Your task to perform on an android device: Show me the alarms in the clock app Image 0: 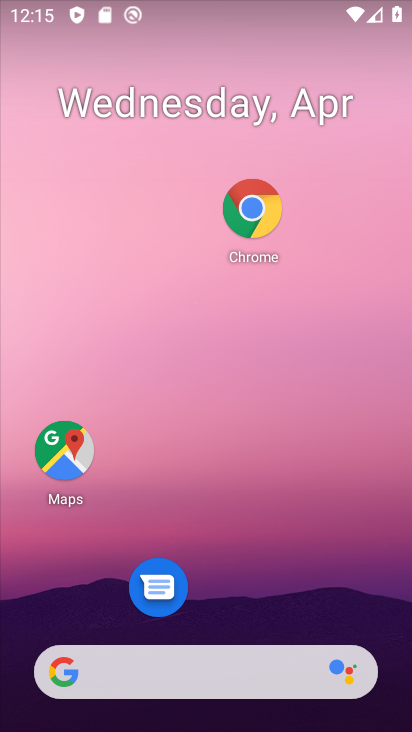
Step 0: drag from (238, 634) to (290, 248)
Your task to perform on an android device: Show me the alarms in the clock app Image 1: 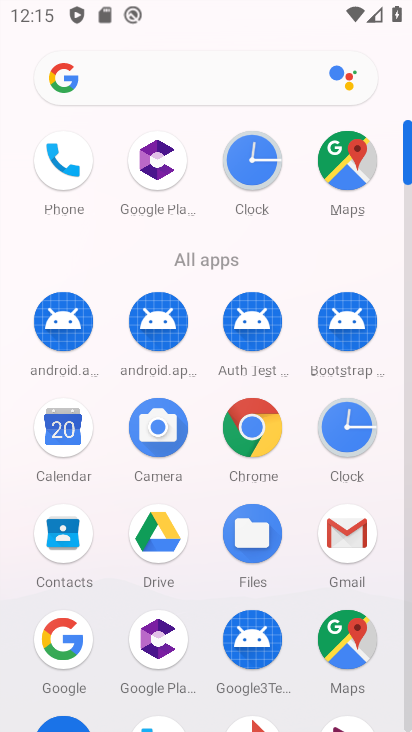
Step 1: click (240, 164)
Your task to perform on an android device: Show me the alarms in the clock app Image 2: 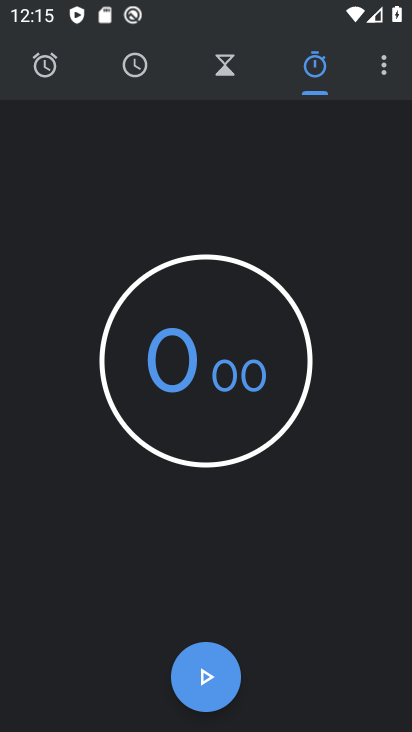
Step 2: click (53, 82)
Your task to perform on an android device: Show me the alarms in the clock app Image 3: 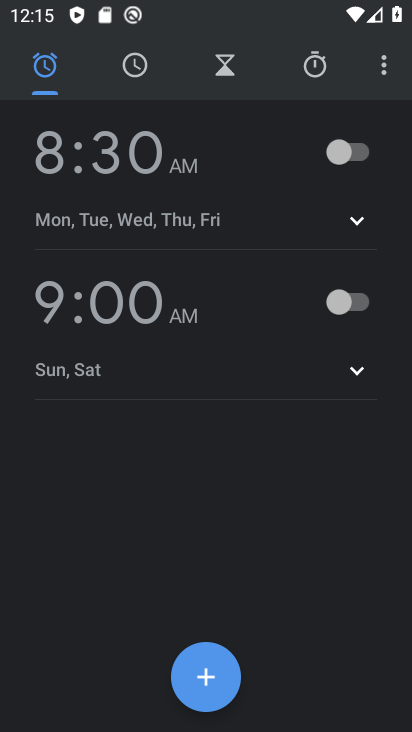
Step 3: task complete